Your task to perform on an android device: check android version Image 0: 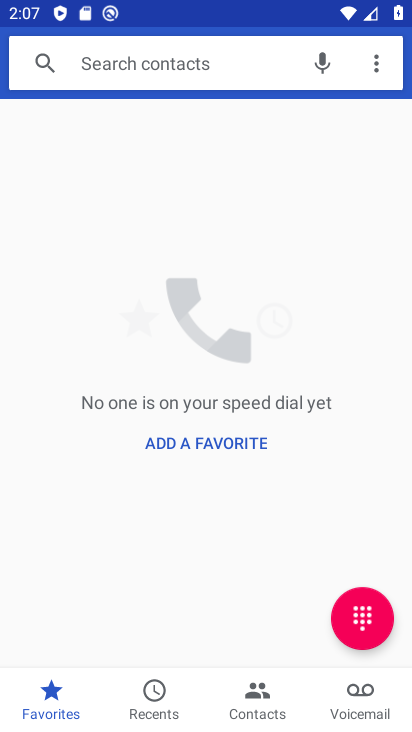
Step 0: press home button
Your task to perform on an android device: check android version Image 1: 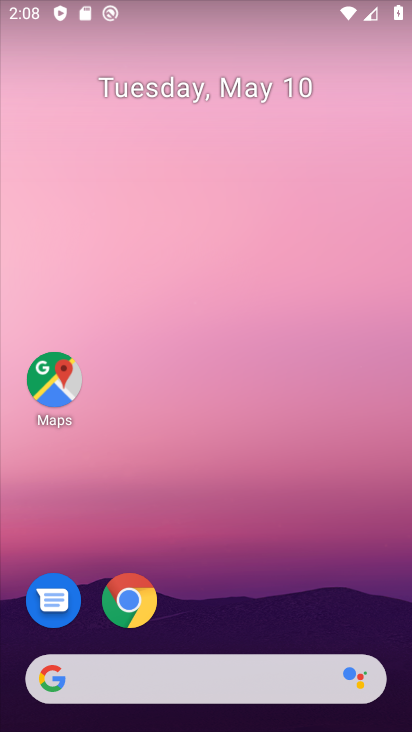
Step 1: drag from (171, 612) to (183, 291)
Your task to perform on an android device: check android version Image 2: 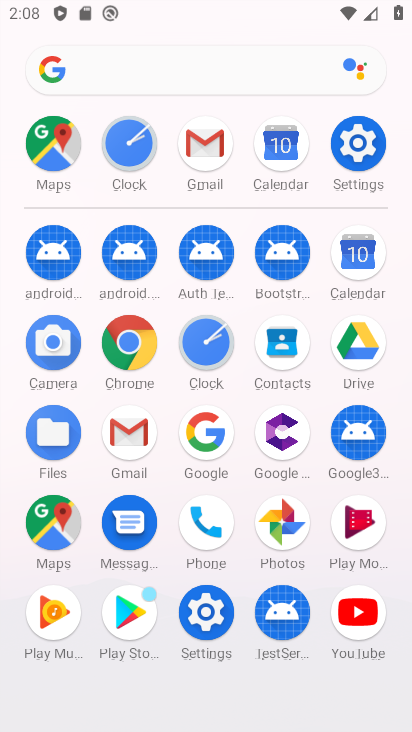
Step 2: click (363, 160)
Your task to perform on an android device: check android version Image 3: 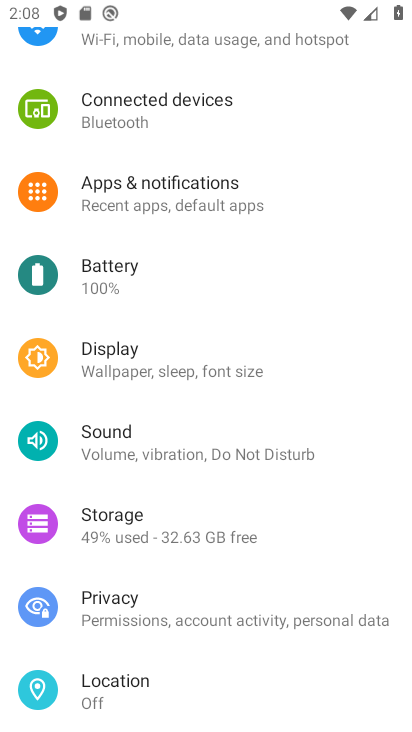
Step 3: drag from (190, 432) to (176, 159)
Your task to perform on an android device: check android version Image 4: 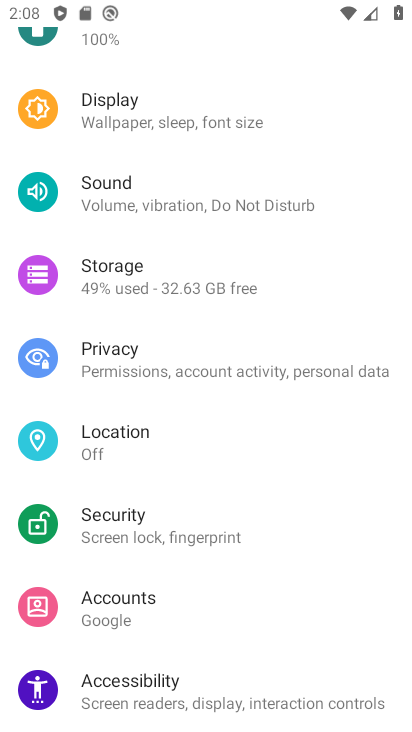
Step 4: drag from (170, 501) to (153, 242)
Your task to perform on an android device: check android version Image 5: 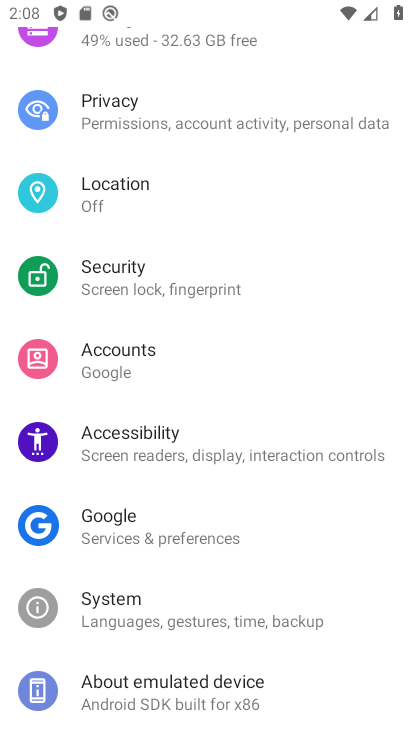
Step 5: drag from (181, 512) to (166, 255)
Your task to perform on an android device: check android version Image 6: 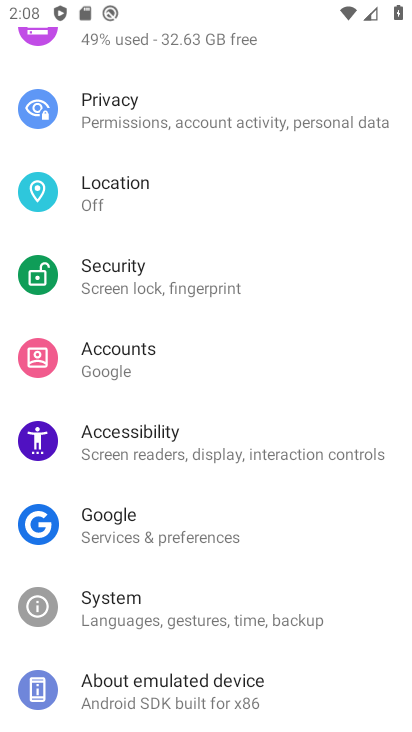
Step 6: drag from (179, 488) to (179, 257)
Your task to perform on an android device: check android version Image 7: 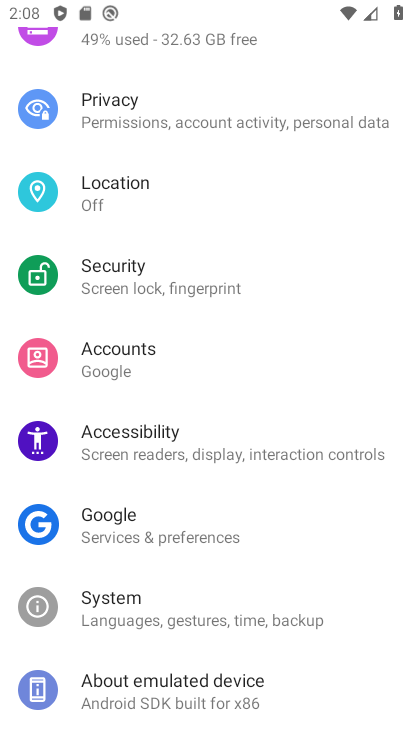
Step 7: click (180, 693)
Your task to perform on an android device: check android version Image 8: 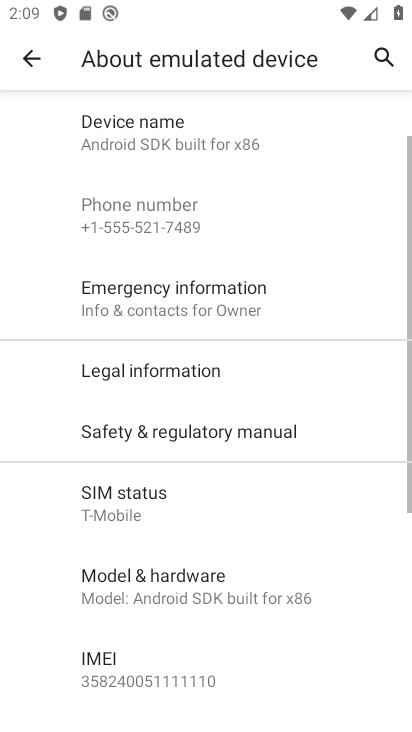
Step 8: drag from (191, 538) to (194, 264)
Your task to perform on an android device: check android version Image 9: 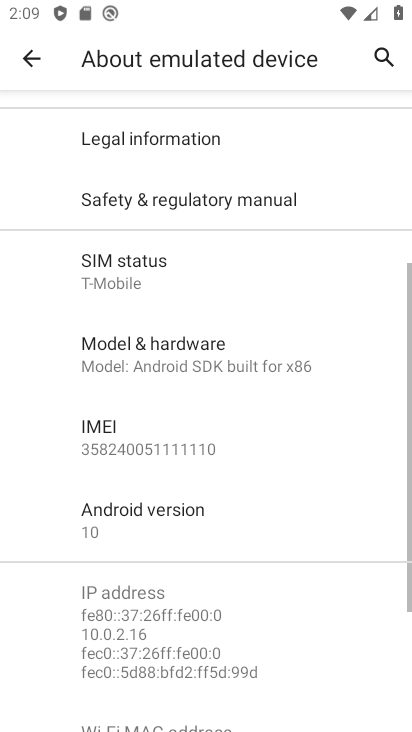
Step 9: click (176, 515)
Your task to perform on an android device: check android version Image 10: 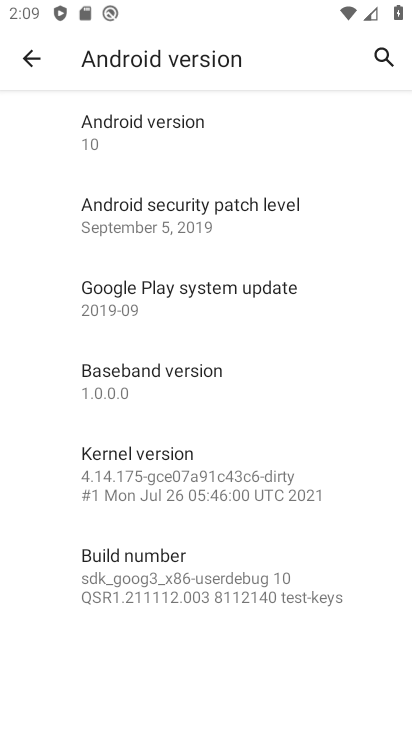
Step 10: click (230, 154)
Your task to perform on an android device: check android version Image 11: 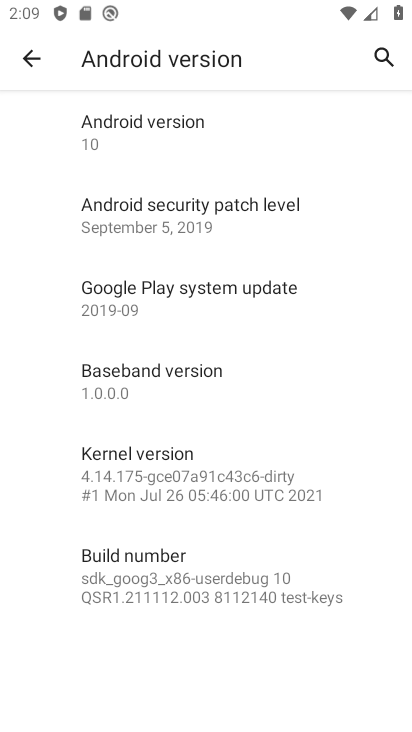
Step 11: task complete